Your task to perform on an android device: remove spam from my inbox in the gmail app Image 0: 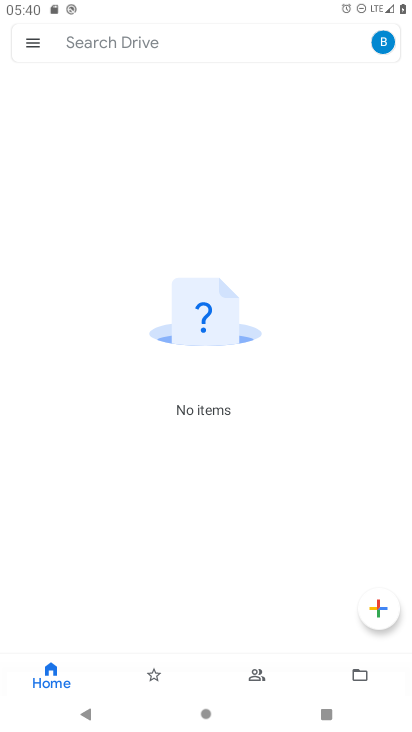
Step 0: press home button
Your task to perform on an android device: remove spam from my inbox in the gmail app Image 1: 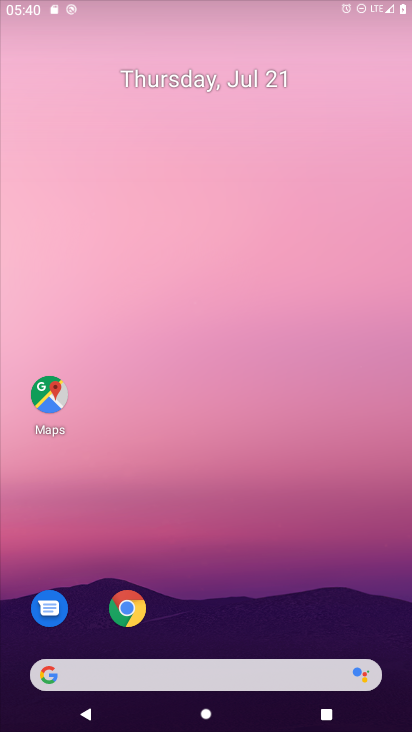
Step 1: drag from (199, 608) to (324, 35)
Your task to perform on an android device: remove spam from my inbox in the gmail app Image 2: 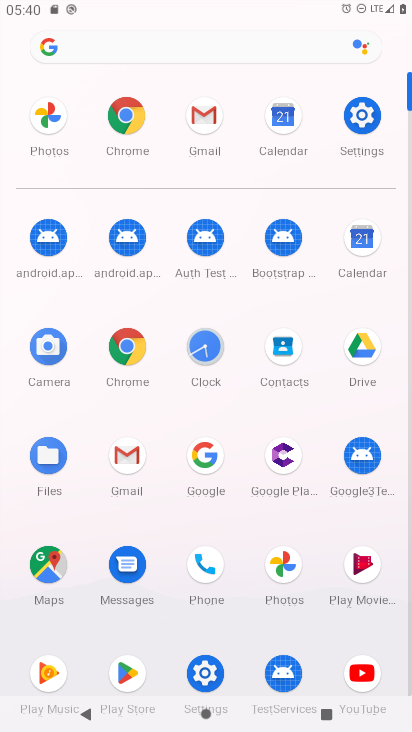
Step 2: click (112, 461)
Your task to perform on an android device: remove spam from my inbox in the gmail app Image 3: 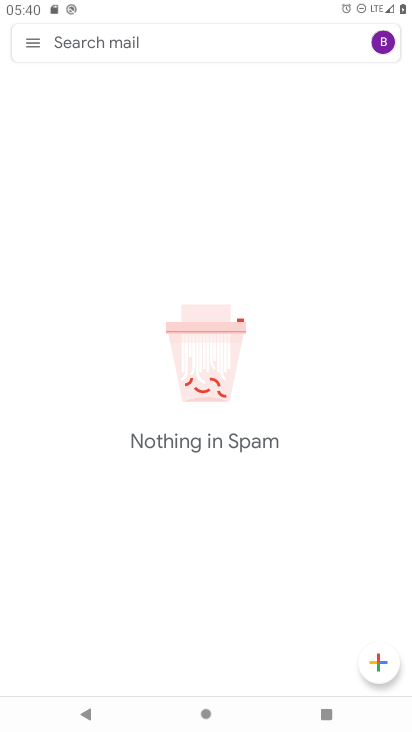
Step 3: task complete